Your task to perform on an android device: turn on translation in the chrome app Image 0: 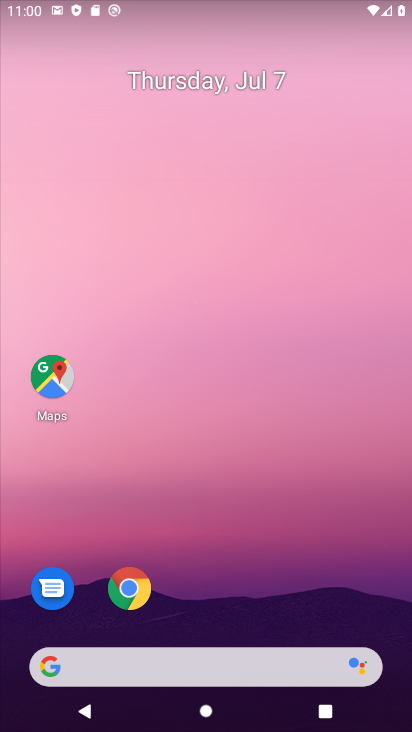
Step 0: drag from (195, 634) to (182, 83)
Your task to perform on an android device: turn on translation in the chrome app Image 1: 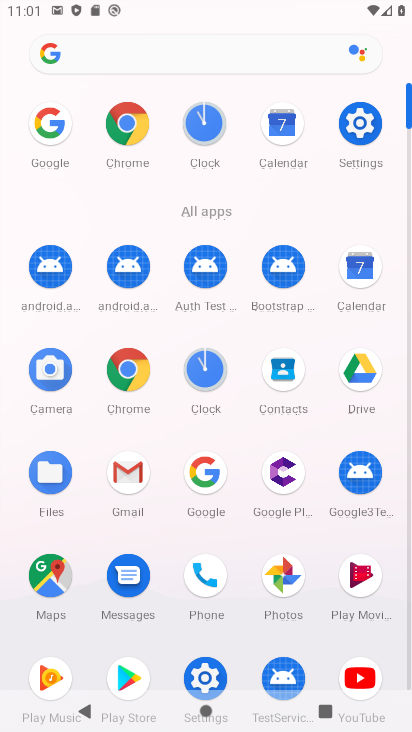
Step 1: click (116, 131)
Your task to perform on an android device: turn on translation in the chrome app Image 2: 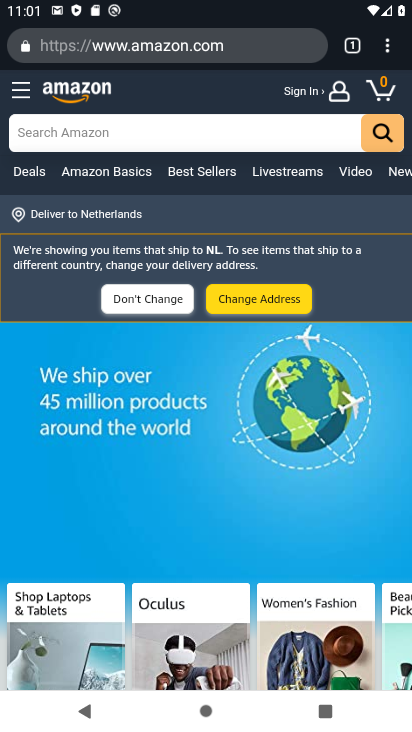
Step 2: click (388, 35)
Your task to perform on an android device: turn on translation in the chrome app Image 3: 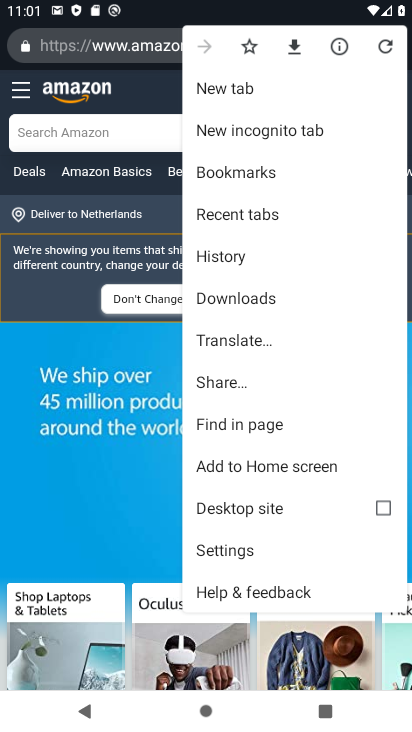
Step 3: click (232, 548)
Your task to perform on an android device: turn on translation in the chrome app Image 4: 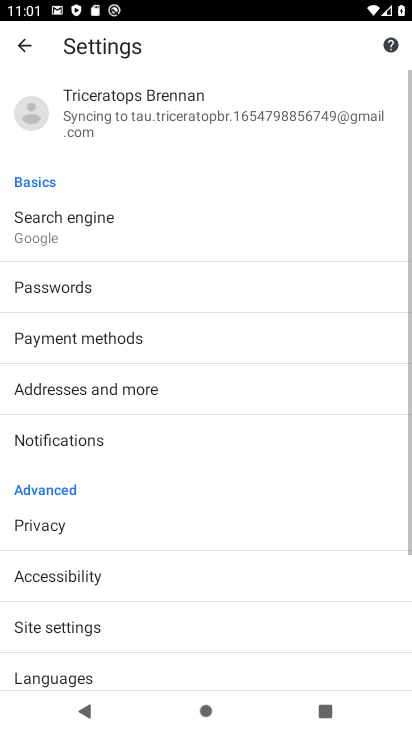
Step 4: drag from (249, 503) to (198, 194)
Your task to perform on an android device: turn on translation in the chrome app Image 5: 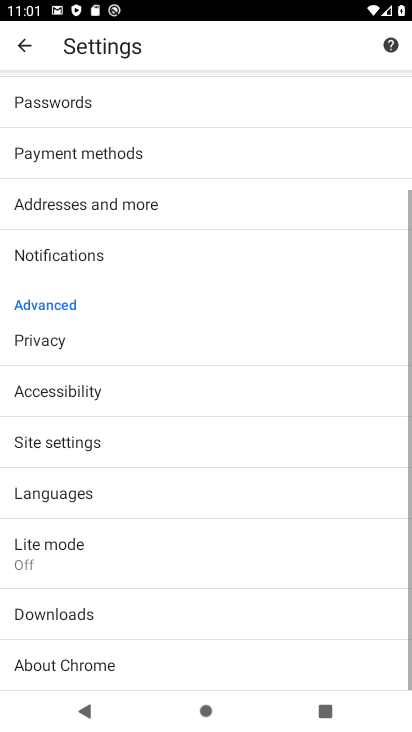
Step 5: click (168, 500)
Your task to perform on an android device: turn on translation in the chrome app Image 6: 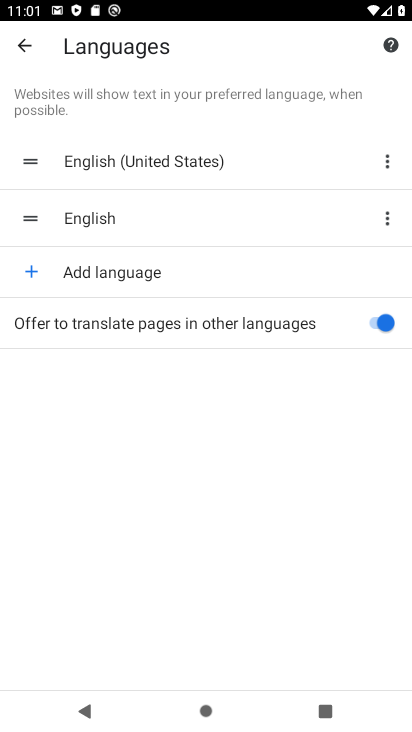
Step 6: task complete